Your task to perform on an android device: What's the news in Chile? Image 0: 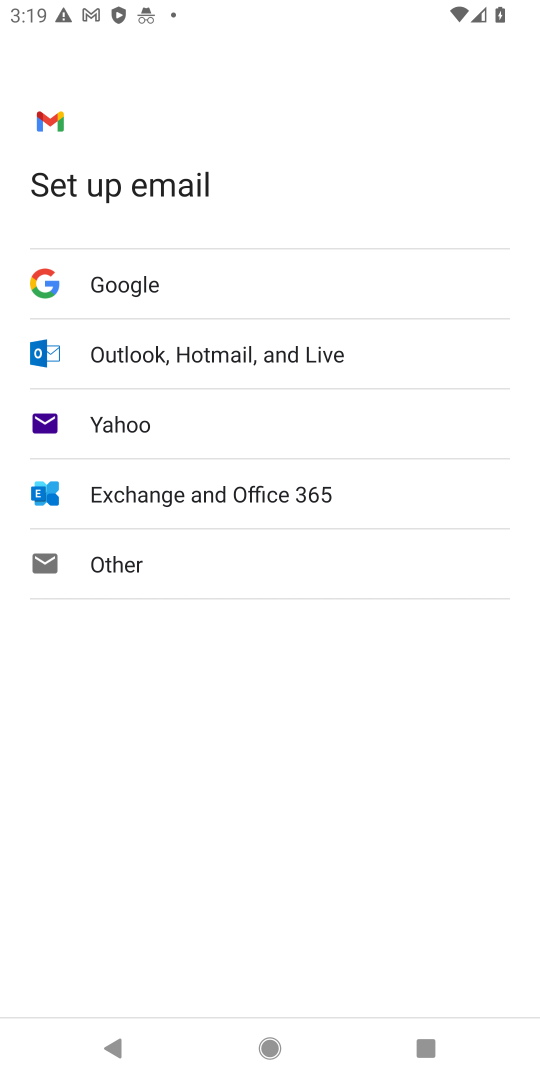
Step 0: press home button
Your task to perform on an android device: What's the news in Chile? Image 1: 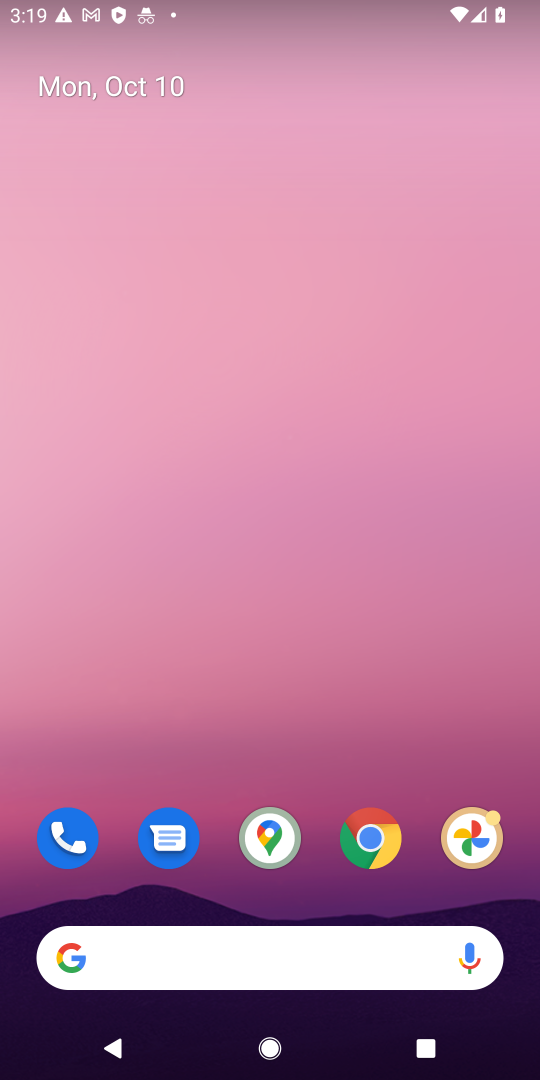
Step 1: click (387, 837)
Your task to perform on an android device: What's the news in Chile? Image 2: 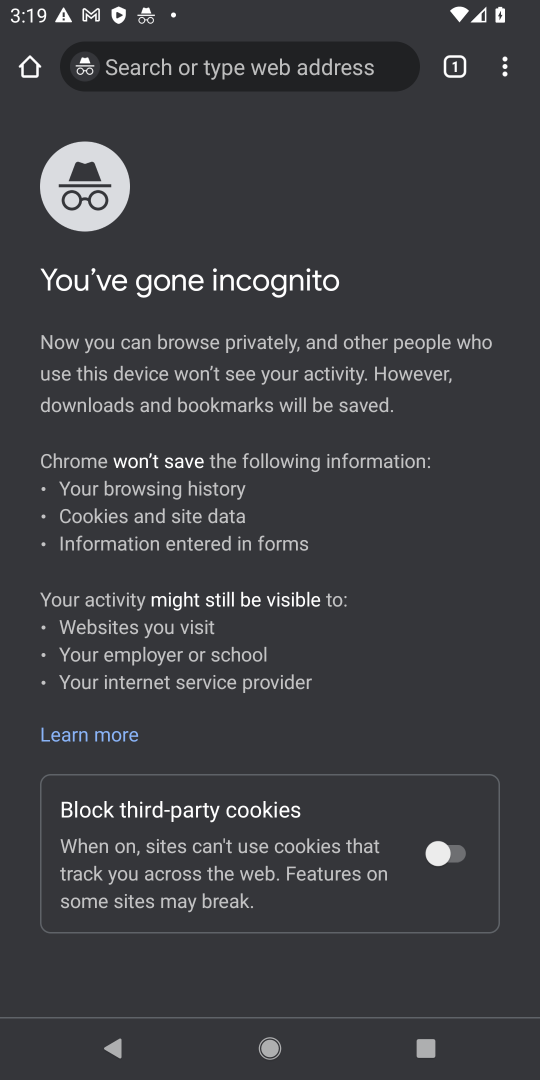
Step 2: click (267, 81)
Your task to perform on an android device: What's the news in Chile? Image 3: 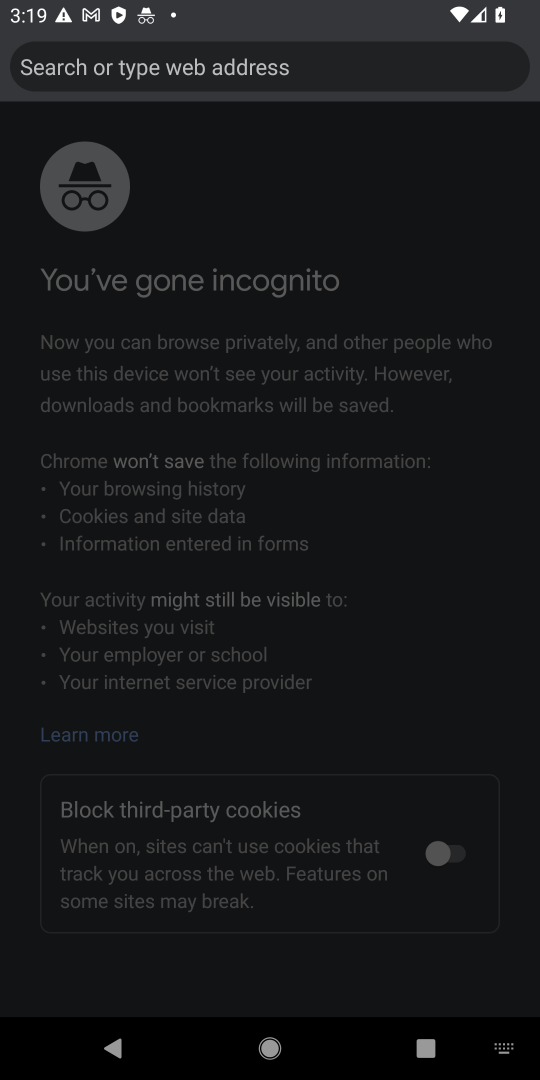
Step 3: type "What's the news in Chile?"
Your task to perform on an android device: What's the news in Chile? Image 4: 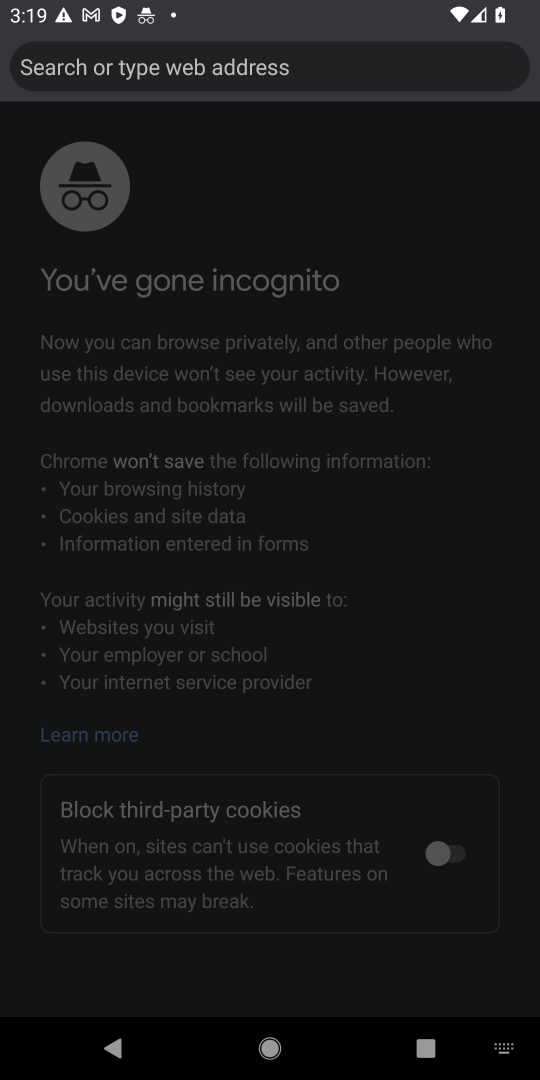
Step 4: click (327, 56)
Your task to perform on an android device: What's the news in Chile? Image 5: 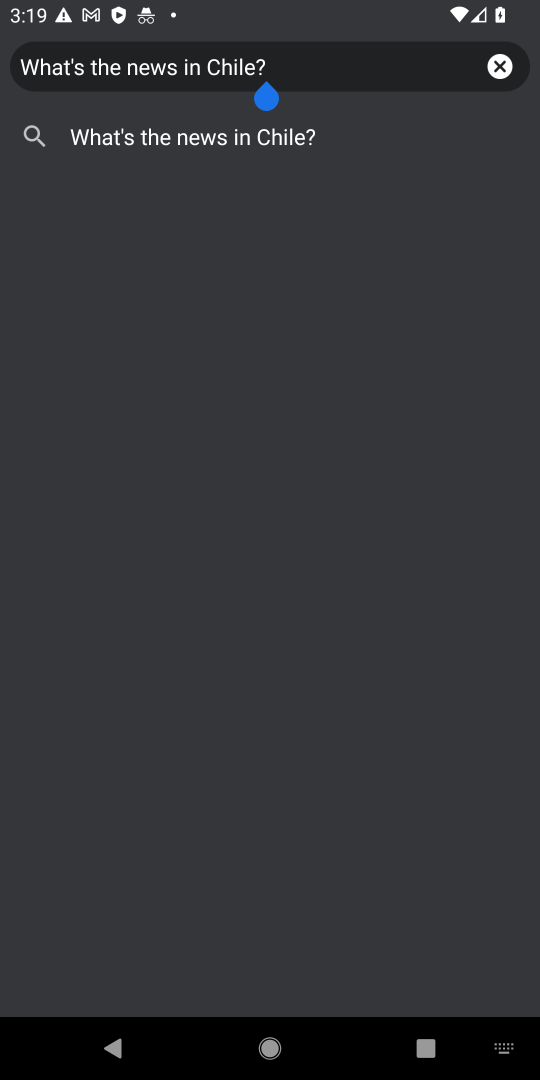
Step 5: click (348, 140)
Your task to perform on an android device: What's the news in Chile? Image 6: 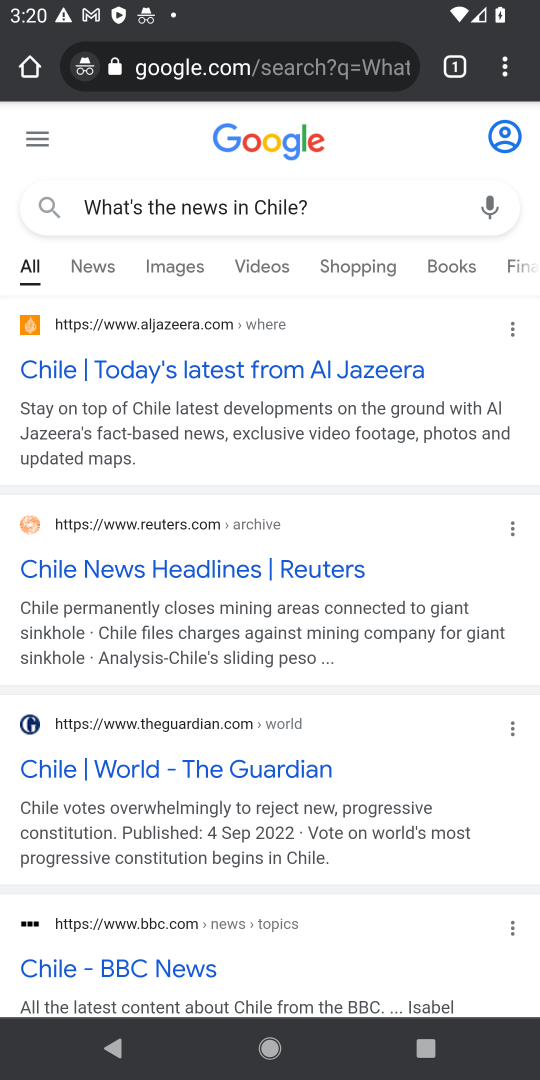
Step 6: click (306, 368)
Your task to perform on an android device: What's the news in Chile? Image 7: 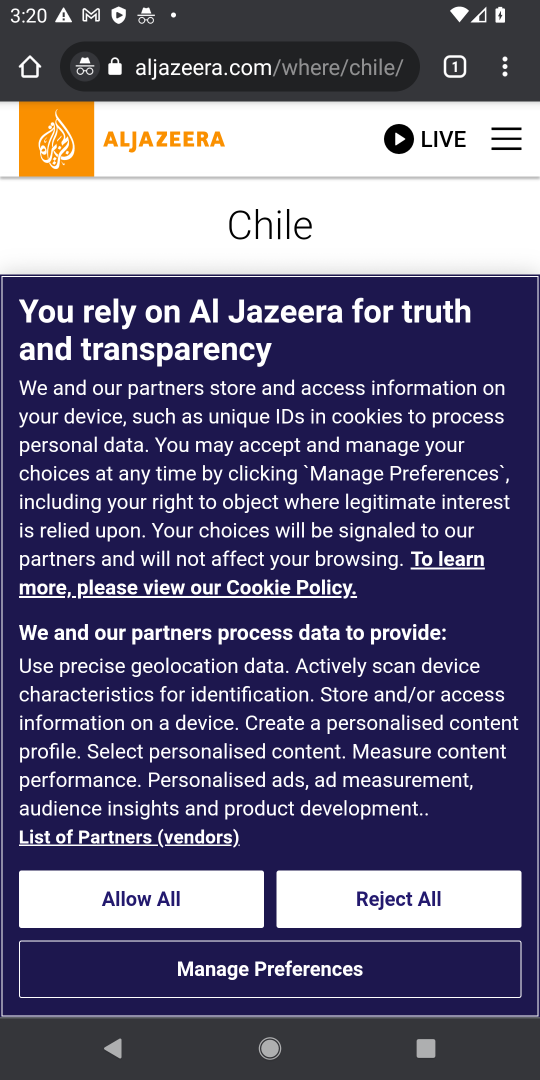
Step 7: task complete